Your task to perform on an android device: Open Google Chrome Image 0: 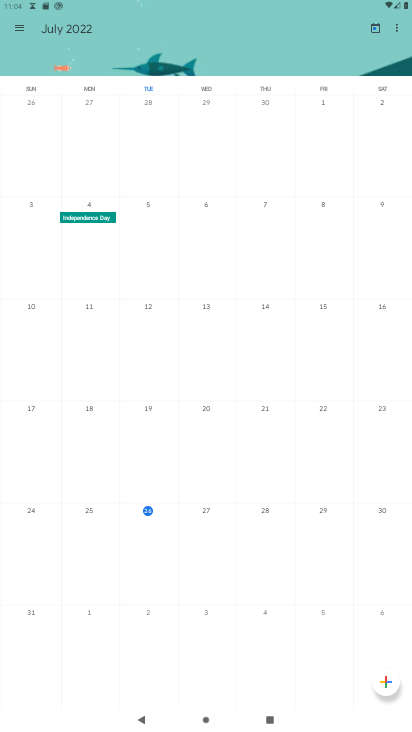
Step 0: press home button
Your task to perform on an android device: Open Google Chrome Image 1: 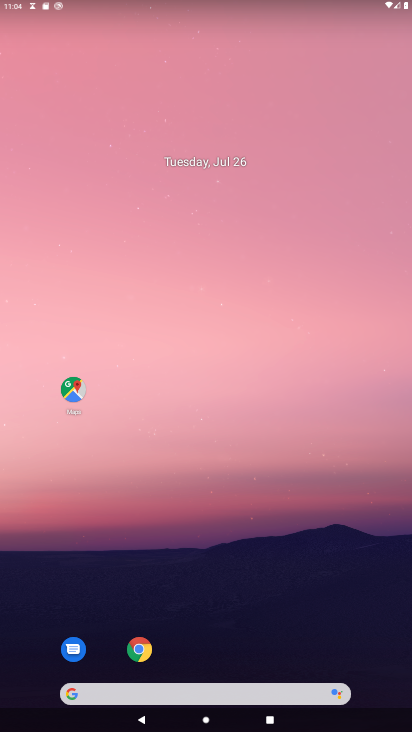
Step 1: click (143, 656)
Your task to perform on an android device: Open Google Chrome Image 2: 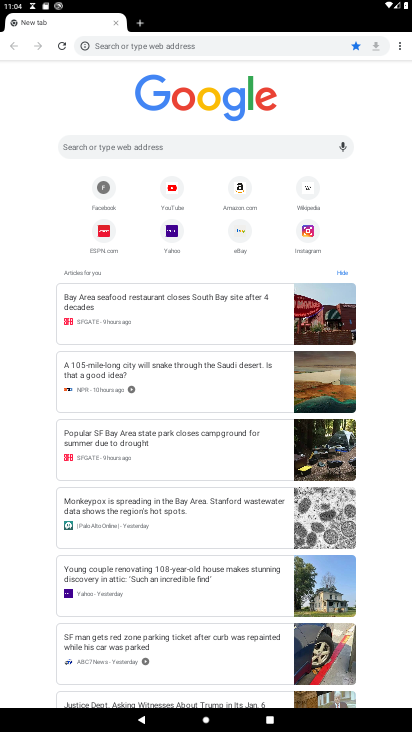
Step 2: task complete